Your task to perform on an android device: toggle pop-ups in chrome Image 0: 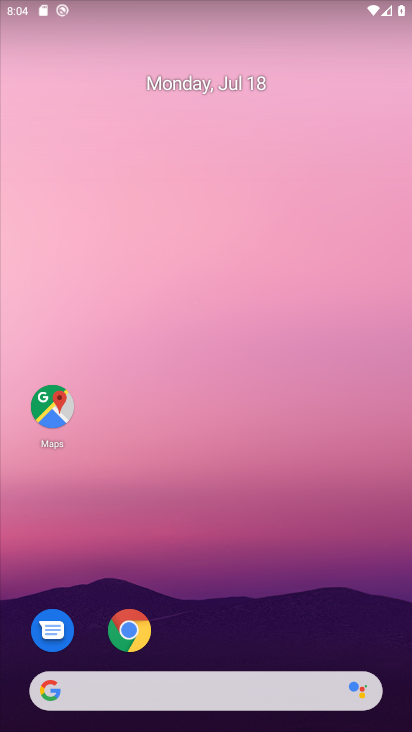
Step 0: click (143, 640)
Your task to perform on an android device: toggle pop-ups in chrome Image 1: 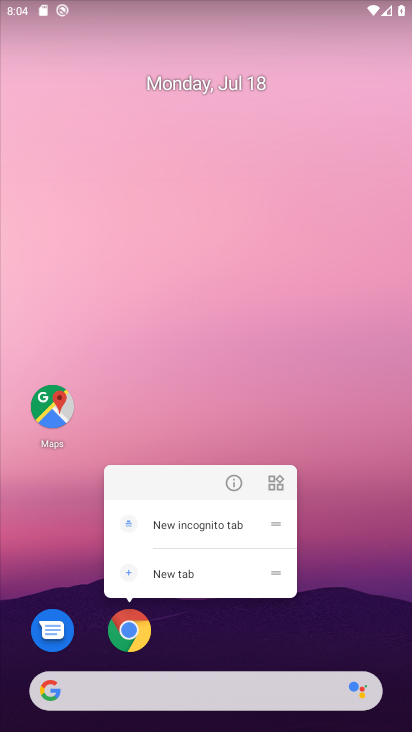
Step 1: click (134, 614)
Your task to perform on an android device: toggle pop-ups in chrome Image 2: 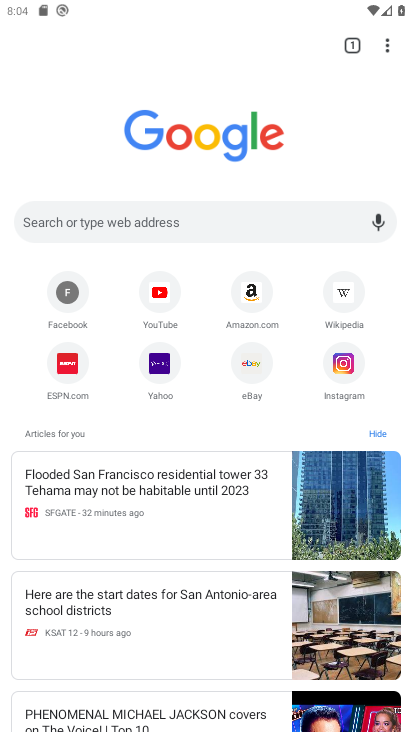
Step 2: click (383, 47)
Your task to perform on an android device: toggle pop-ups in chrome Image 3: 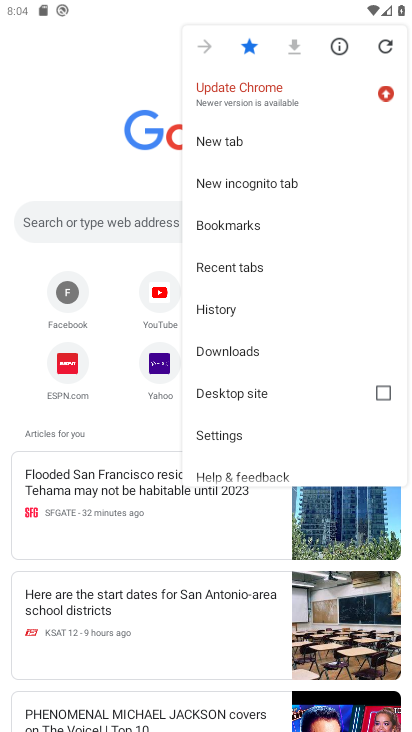
Step 3: click (239, 433)
Your task to perform on an android device: toggle pop-ups in chrome Image 4: 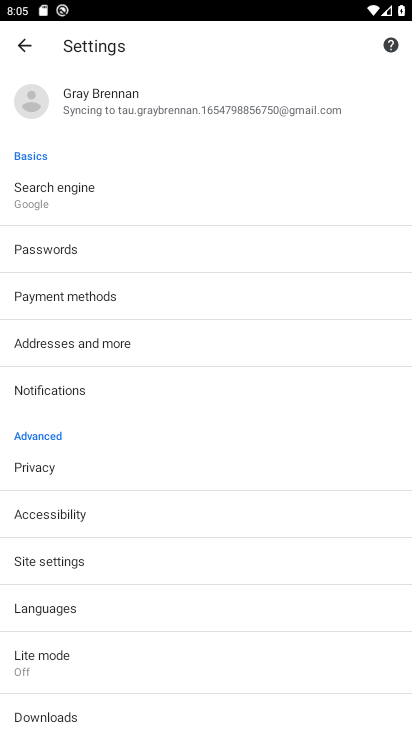
Step 4: click (83, 567)
Your task to perform on an android device: toggle pop-ups in chrome Image 5: 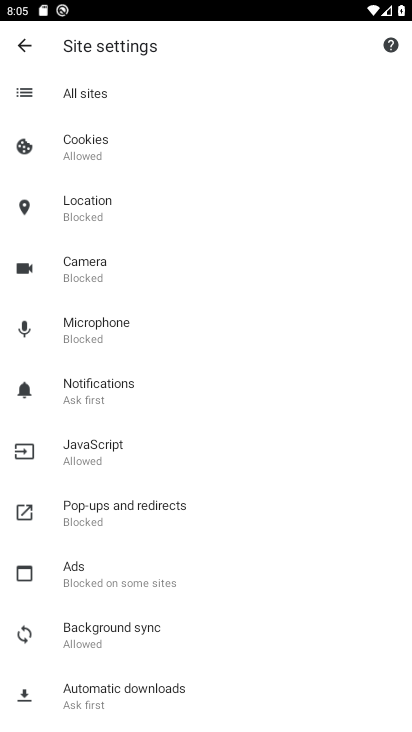
Step 5: click (150, 515)
Your task to perform on an android device: toggle pop-ups in chrome Image 6: 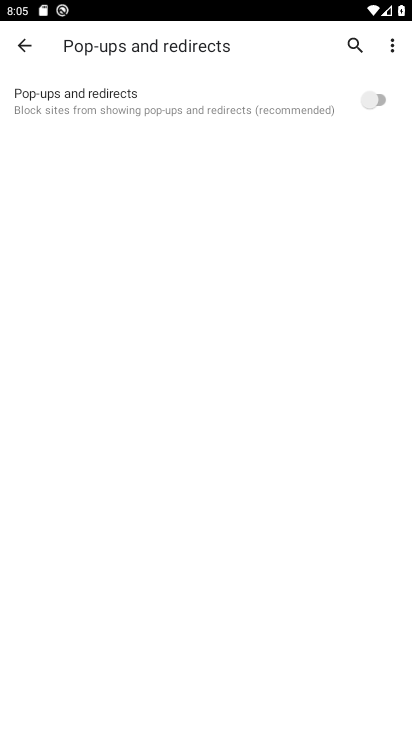
Step 6: click (383, 88)
Your task to perform on an android device: toggle pop-ups in chrome Image 7: 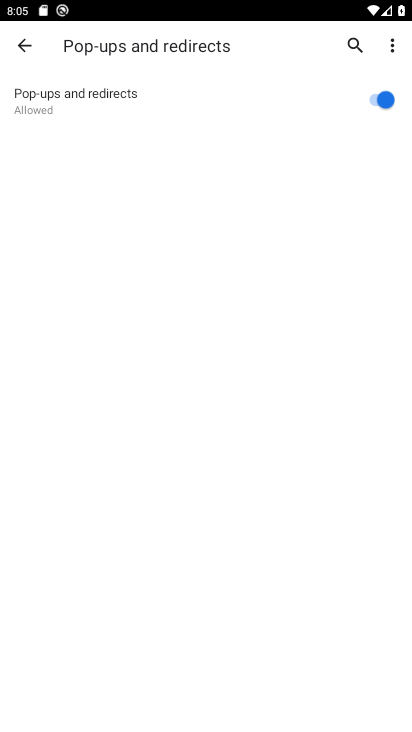
Step 7: task complete